Your task to perform on an android device: open sync settings in chrome Image 0: 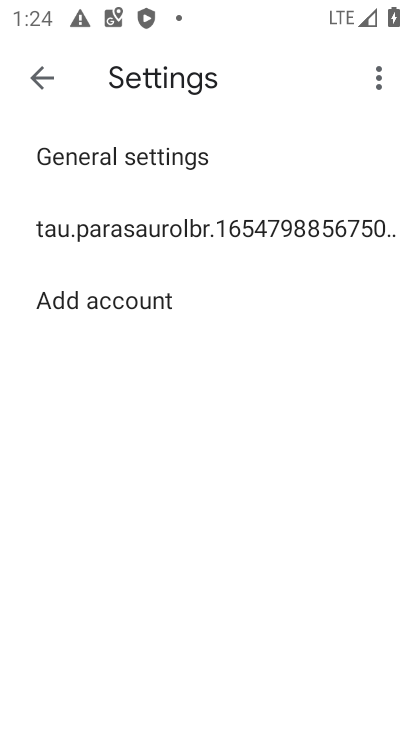
Step 0: press home button
Your task to perform on an android device: open sync settings in chrome Image 1: 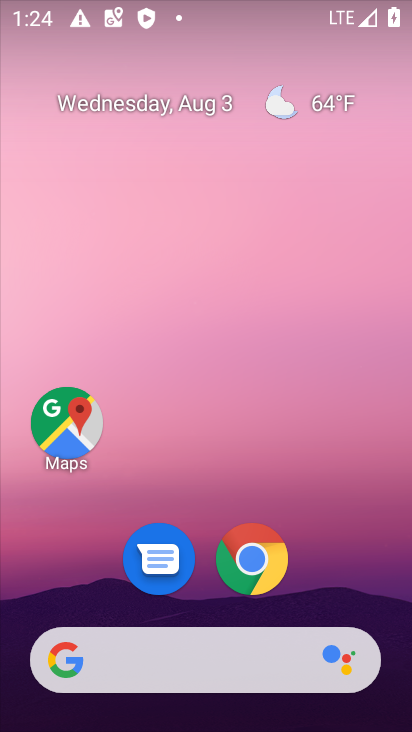
Step 1: drag from (204, 561) to (204, 170)
Your task to perform on an android device: open sync settings in chrome Image 2: 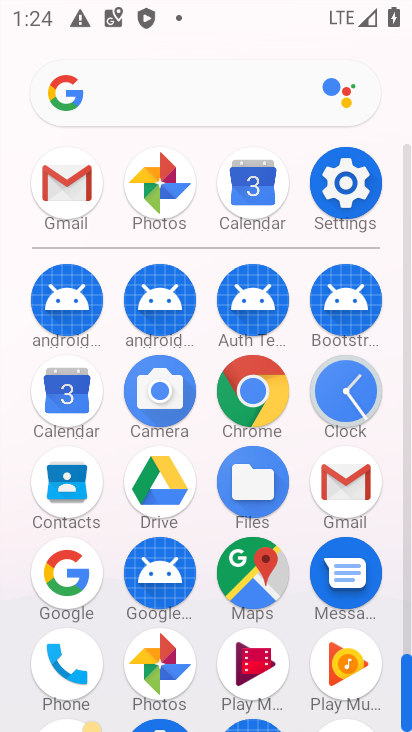
Step 2: click (241, 380)
Your task to perform on an android device: open sync settings in chrome Image 3: 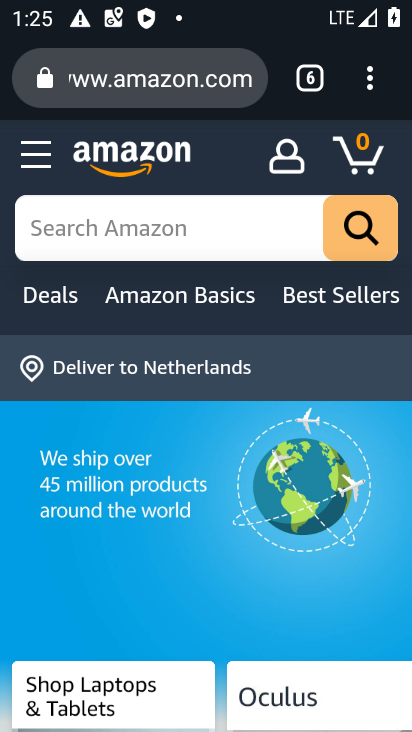
Step 3: click (369, 86)
Your task to perform on an android device: open sync settings in chrome Image 4: 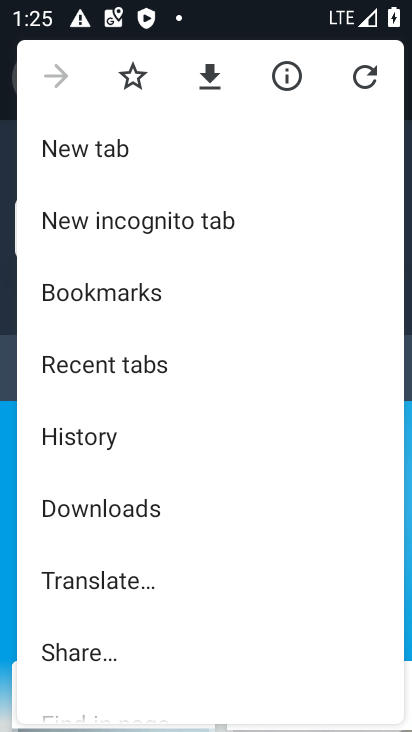
Step 4: drag from (134, 657) to (148, 219)
Your task to perform on an android device: open sync settings in chrome Image 5: 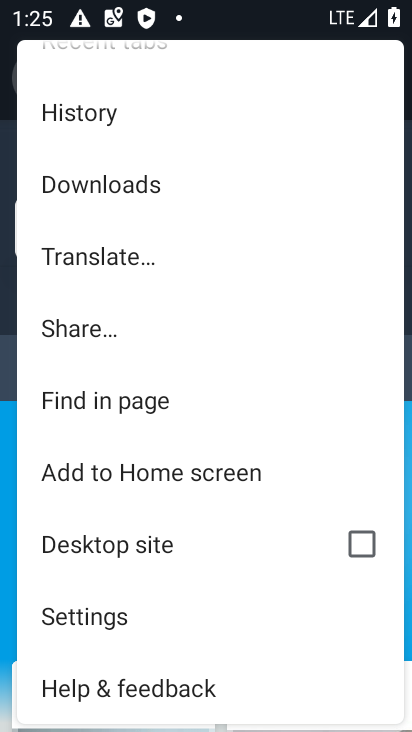
Step 5: click (89, 618)
Your task to perform on an android device: open sync settings in chrome Image 6: 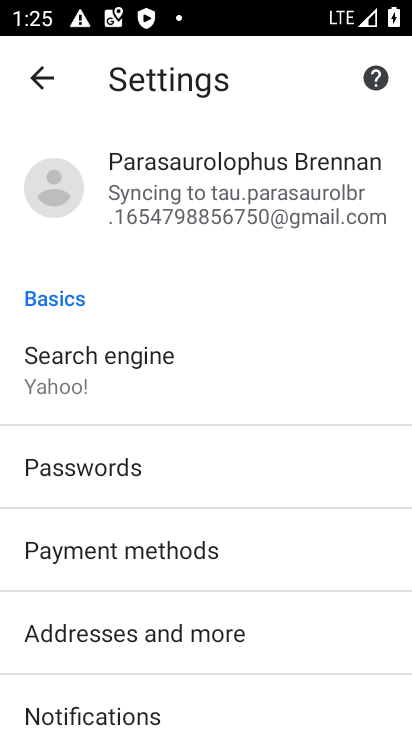
Step 6: drag from (107, 644) to (124, 332)
Your task to perform on an android device: open sync settings in chrome Image 7: 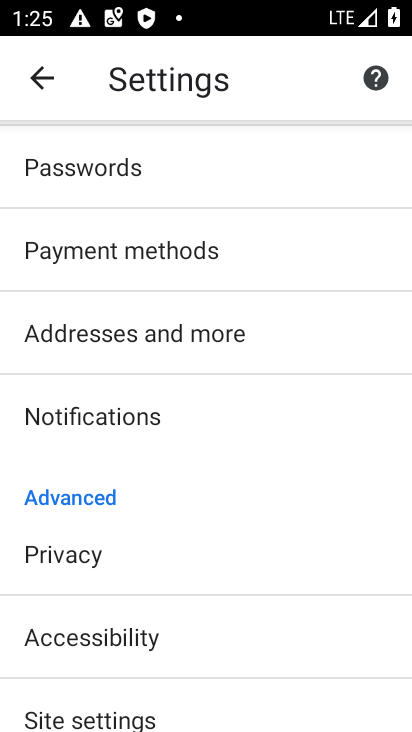
Step 7: drag from (143, 606) to (166, 278)
Your task to perform on an android device: open sync settings in chrome Image 8: 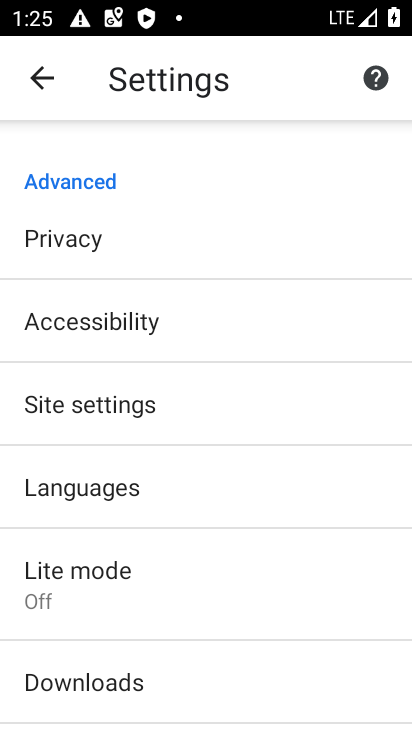
Step 8: click (108, 407)
Your task to perform on an android device: open sync settings in chrome Image 9: 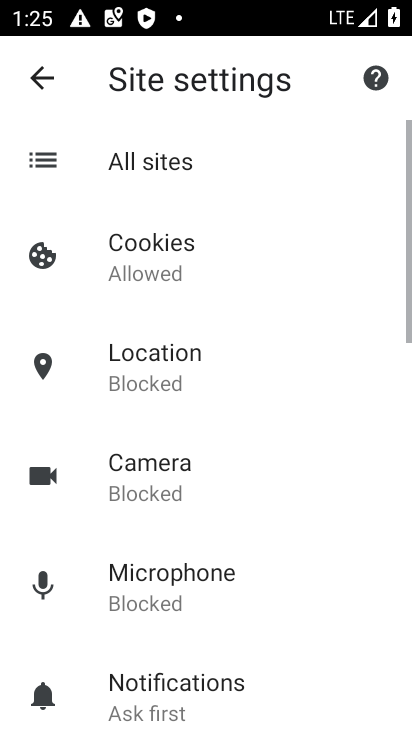
Step 9: drag from (164, 558) to (161, 258)
Your task to perform on an android device: open sync settings in chrome Image 10: 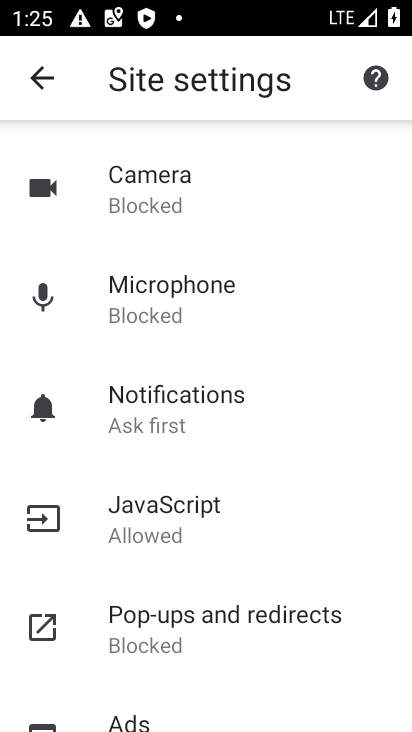
Step 10: drag from (166, 686) to (168, 397)
Your task to perform on an android device: open sync settings in chrome Image 11: 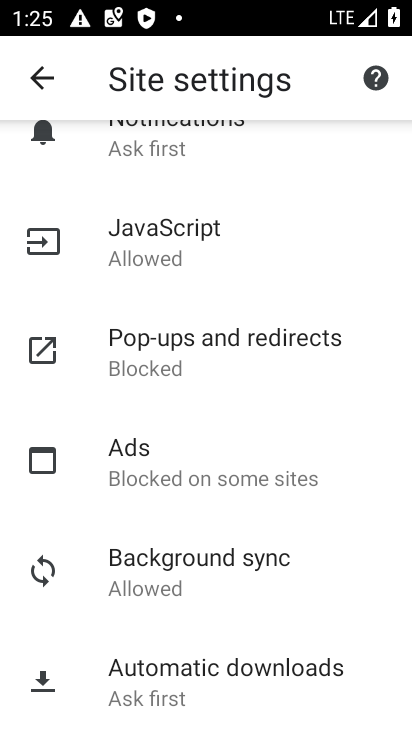
Step 11: click (218, 553)
Your task to perform on an android device: open sync settings in chrome Image 12: 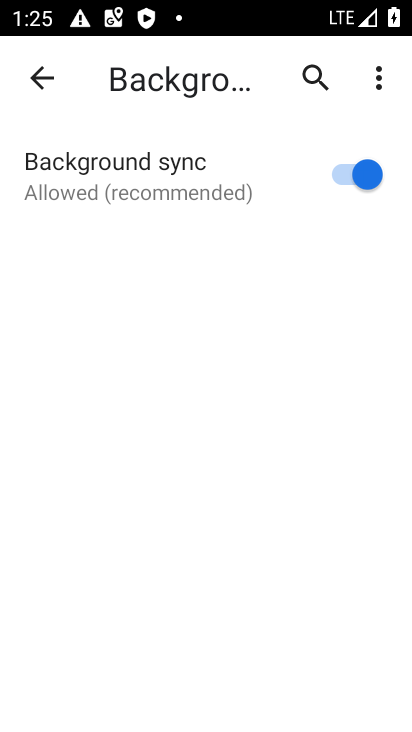
Step 12: click (340, 178)
Your task to perform on an android device: open sync settings in chrome Image 13: 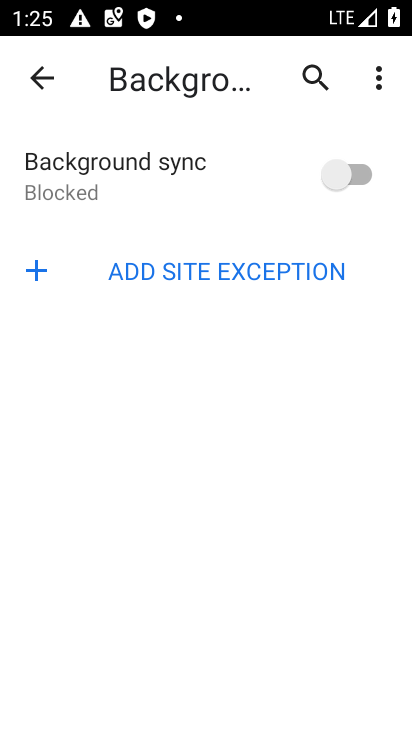
Step 13: task complete